Your task to perform on an android device: Open internet settings Image 0: 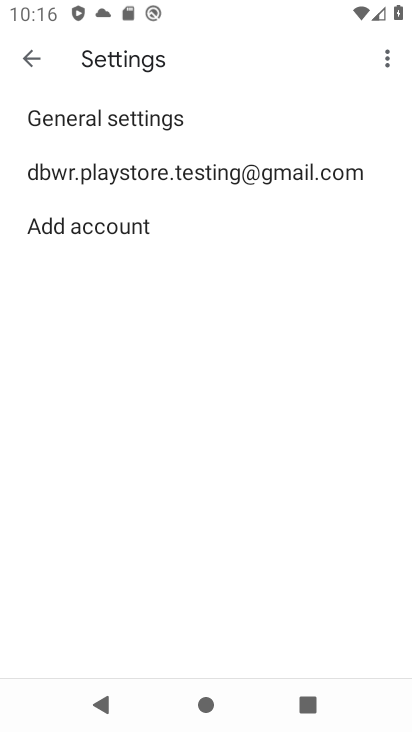
Step 0: press home button
Your task to perform on an android device: Open internet settings Image 1: 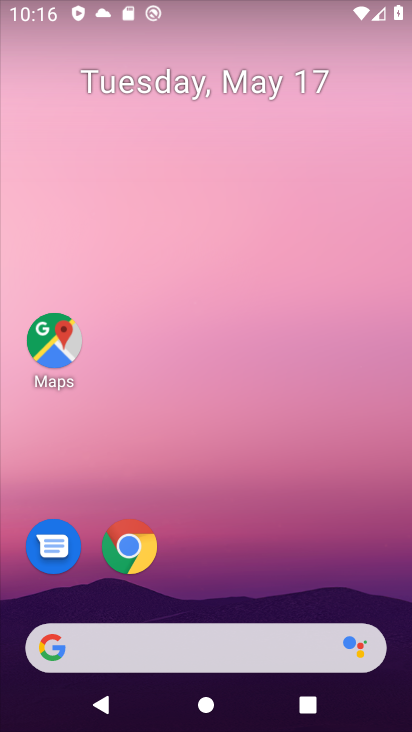
Step 1: drag from (211, 534) to (215, 151)
Your task to perform on an android device: Open internet settings Image 2: 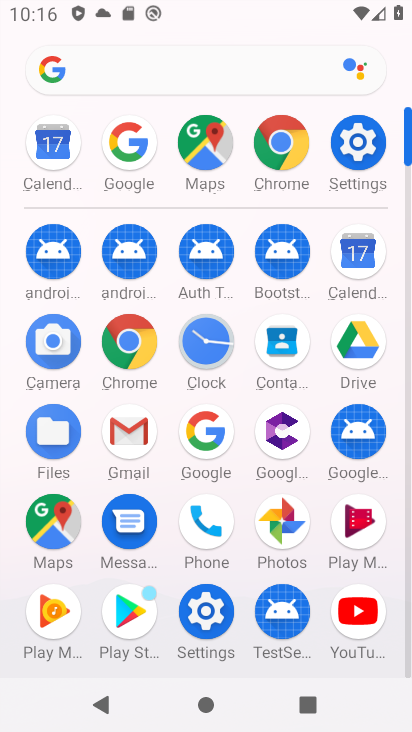
Step 2: click (357, 140)
Your task to perform on an android device: Open internet settings Image 3: 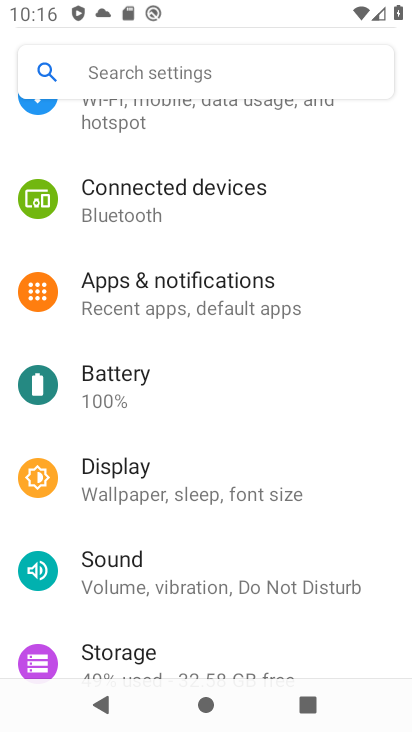
Step 3: drag from (151, 226) to (180, 618)
Your task to perform on an android device: Open internet settings Image 4: 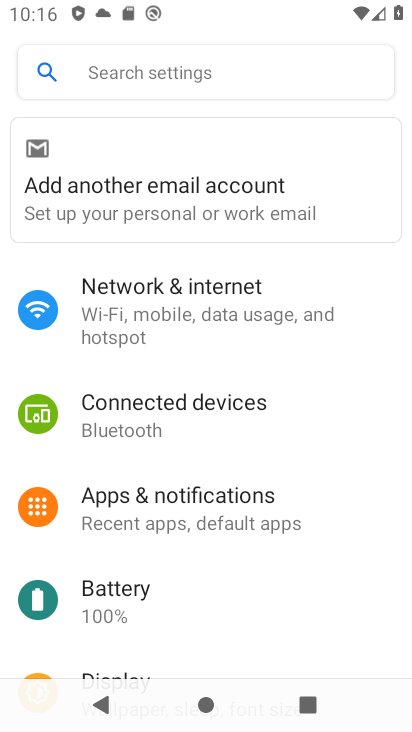
Step 4: click (146, 300)
Your task to perform on an android device: Open internet settings Image 5: 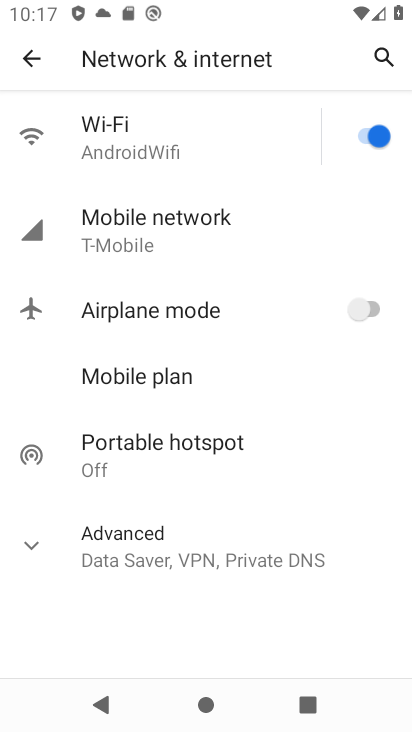
Step 5: task complete